Your task to perform on an android device: check storage Image 0: 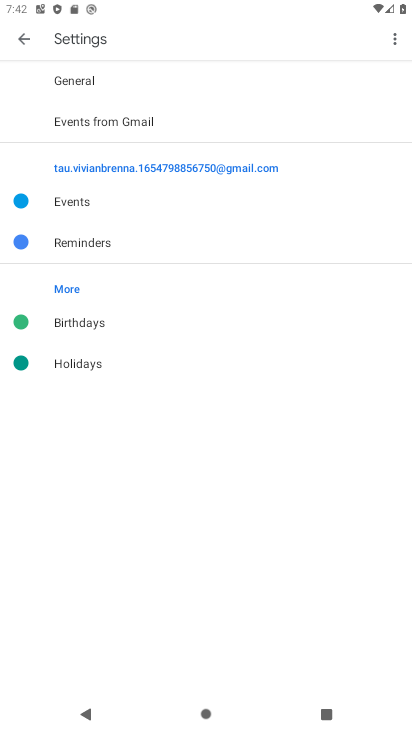
Step 0: press home button
Your task to perform on an android device: check storage Image 1: 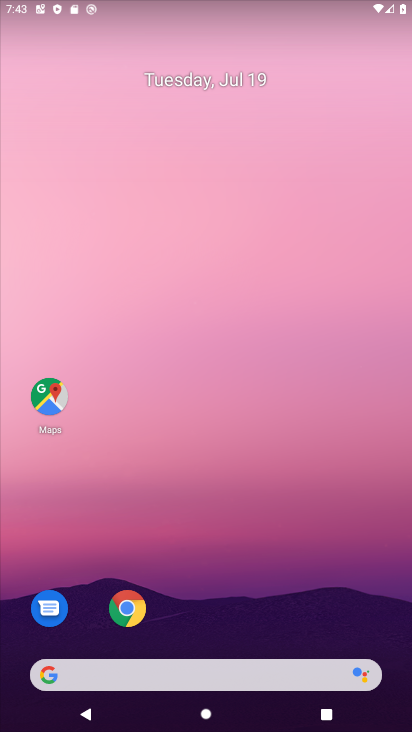
Step 1: drag from (142, 675) to (218, 47)
Your task to perform on an android device: check storage Image 2: 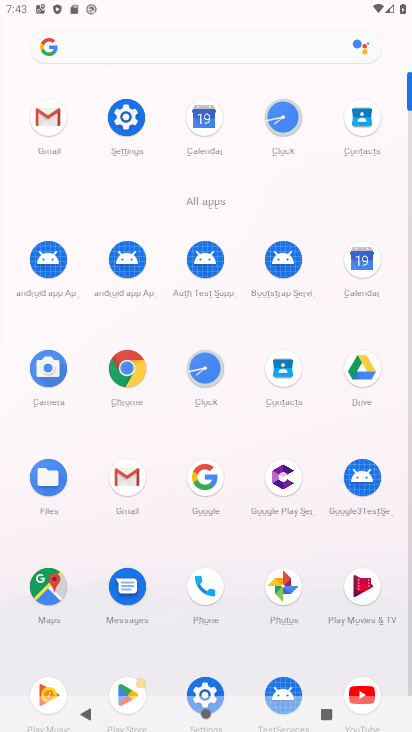
Step 2: click (126, 119)
Your task to perform on an android device: check storage Image 3: 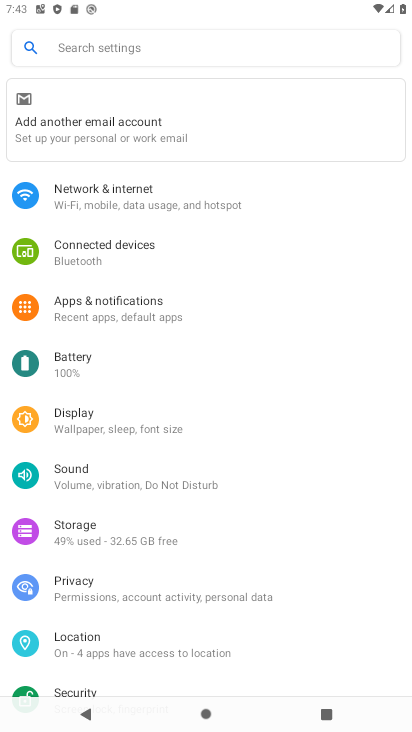
Step 3: click (63, 533)
Your task to perform on an android device: check storage Image 4: 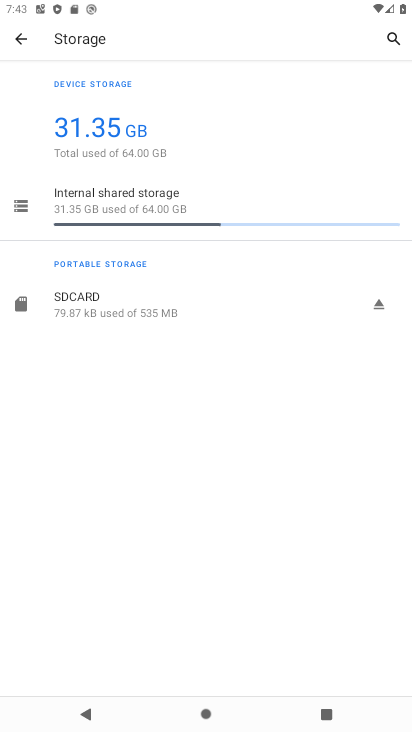
Step 4: task complete